Your task to perform on an android device: Go to wifi settings Image 0: 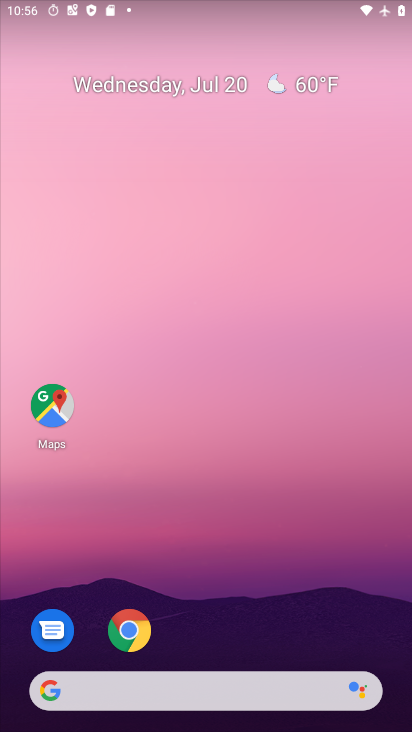
Step 0: drag from (212, 642) to (348, 40)
Your task to perform on an android device: Go to wifi settings Image 1: 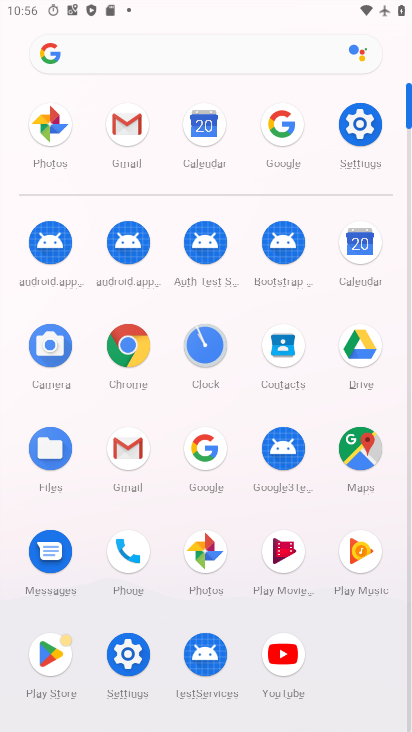
Step 1: click (359, 119)
Your task to perform on an android device: Go to wifi settings Image 2: 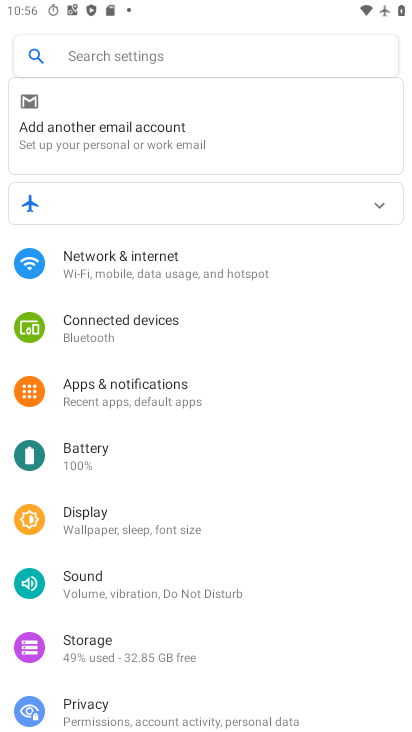
Step 2: click (156, 271)
Your task to perform on an android device: Go to wifi settings Image 3: 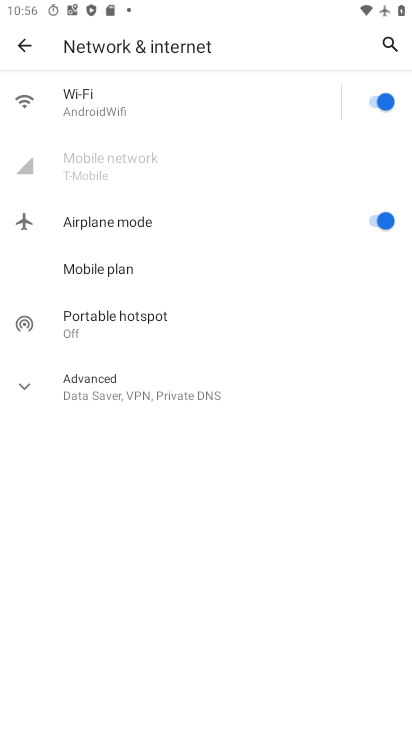
Step 3: click (176, 110)
Your task to perform on an android device: Go to wifi settings Image 4: 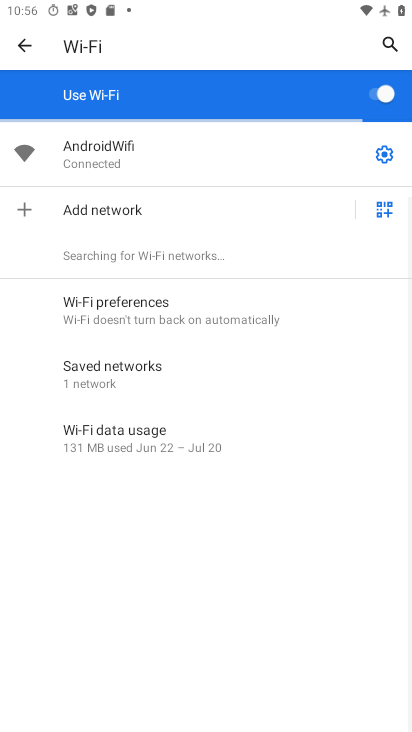
Step 4: click (114, 156)
Your task to perform on an android device: Go to wifi settings Image 5: 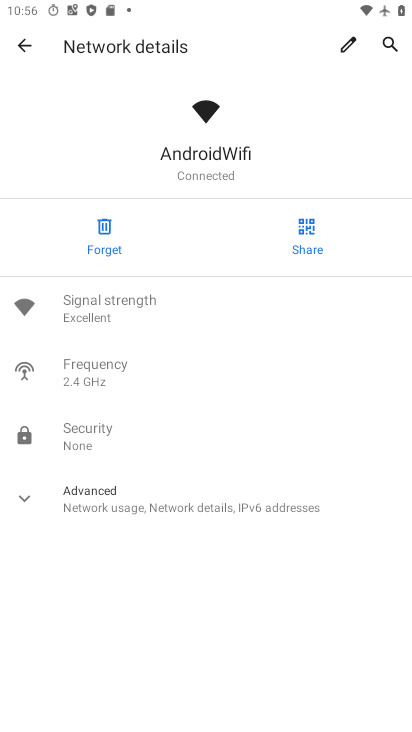
Step 5: task complete